Your task to perform on an android device: What's the weather going to be tomorrow? Image 0: 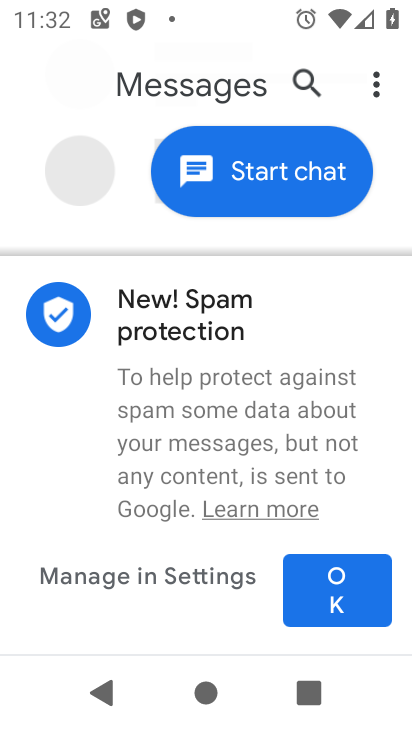
Step 0: press home button
Your task to perform on an android device: What's the weather going to be tomorrow? Image 1: 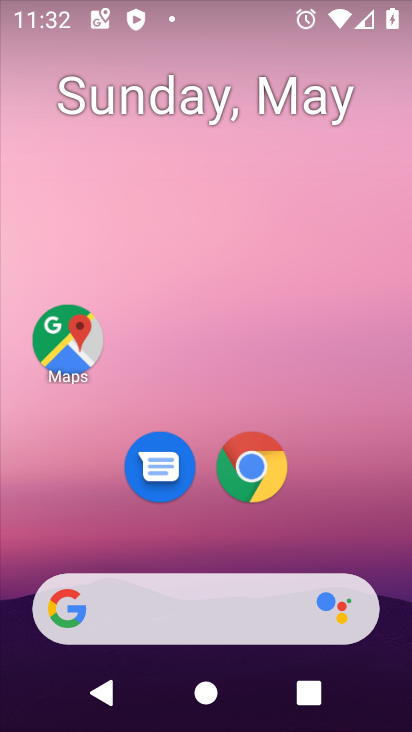
Step 1: click (114, 605)
Your task to perform on an android device: What's the weather going to be tomorrow? Image 2: 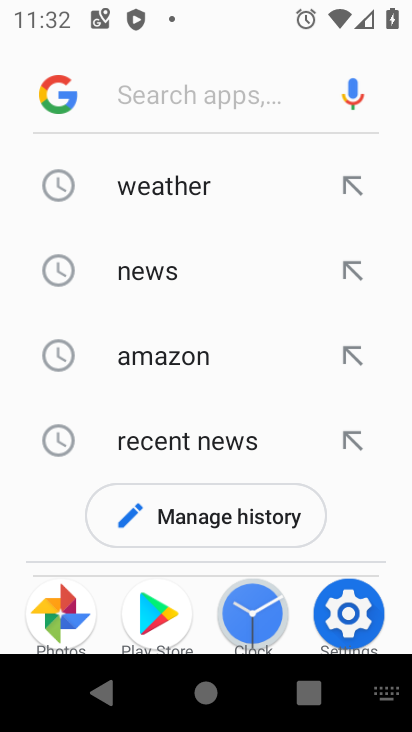
Step 2: click (176, 186)
Your task to perform on an android device: What's the weather going to be tomorrow? Image 3: 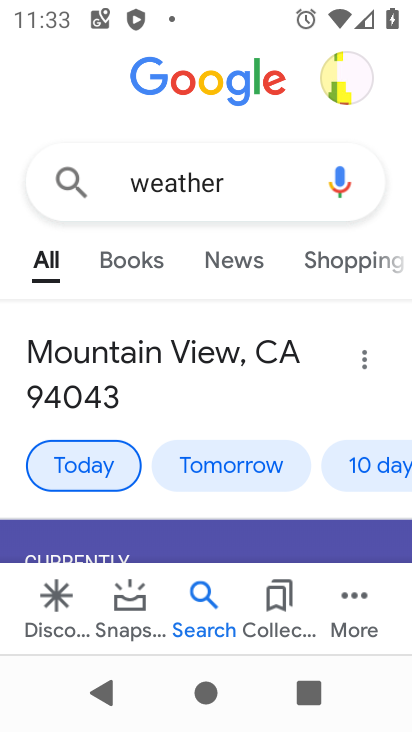
Step 3: click (216, 468)
Your task to perform on an android device: What's the weather going to be tomorrow? Image 4: 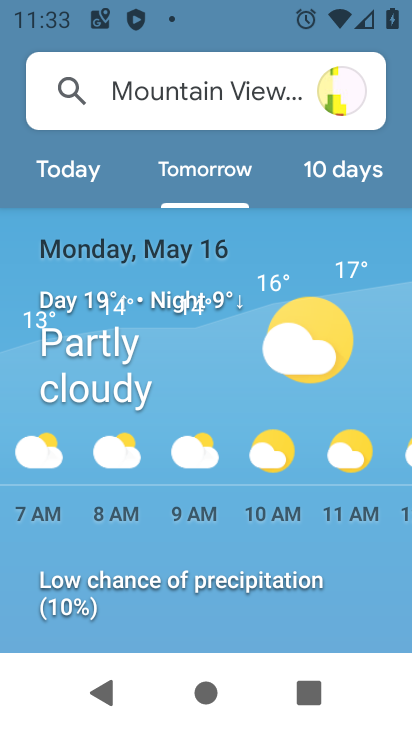
Step 4: task complete